Your task to perform on an android device: toggle sleep mode Image 0: 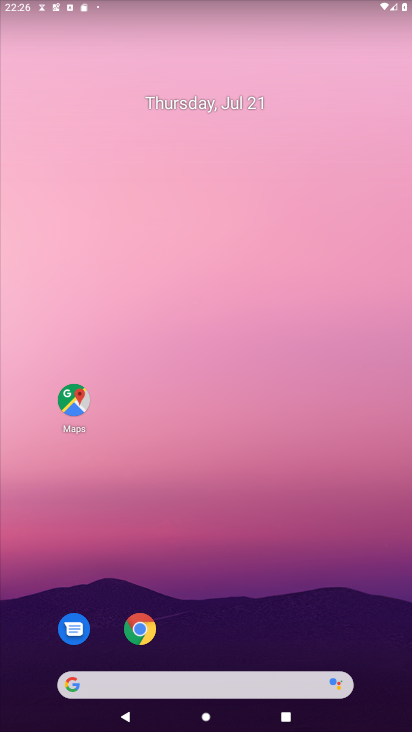
Step 0: drag from (227, 603) to (275, 127)
Your task to perform on an android device: toggle sleep mode Image 1: 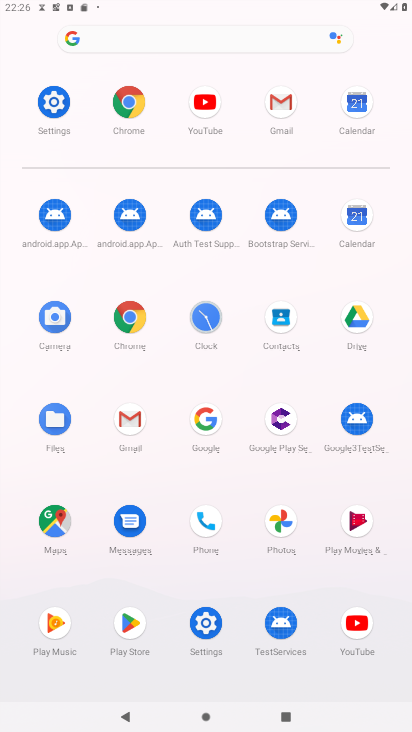
Step 1: click (53, 104)
Your task to perform on an android device: toggle sleep mode Image 2: 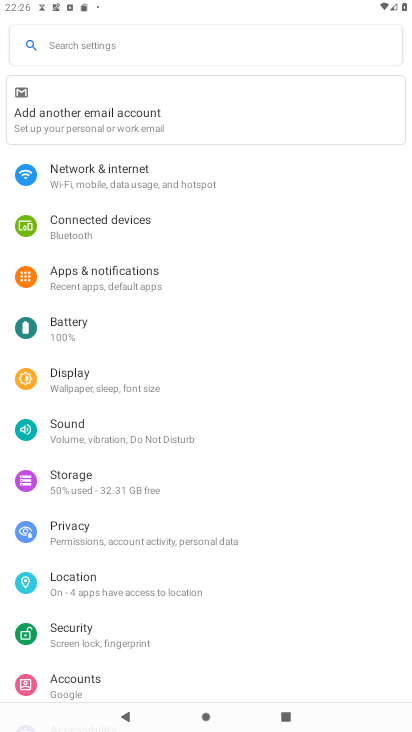
Step 2: task complete